Your task to perform on an android device: turn off priority inbox in the gmail app Image 0: 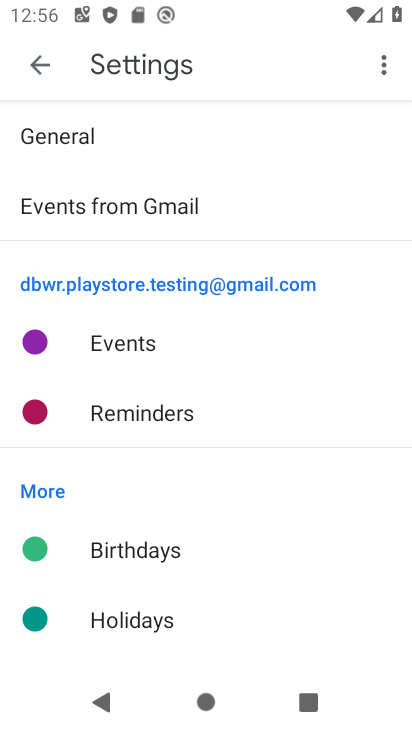
Step 0: press home button
Your task to perform on an android device: turn off priority inbox in the gmail app Image 1: 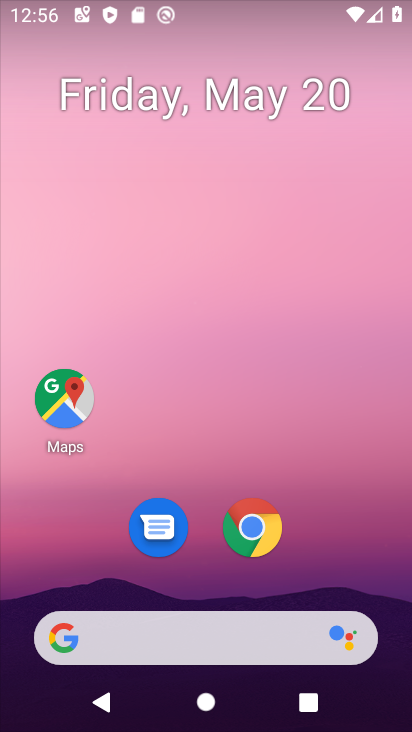
Step 1: drag from (307, 533) to (328, 20)
Your task to perform on an android device: turn off priority inbox in the gmail app Image 2: 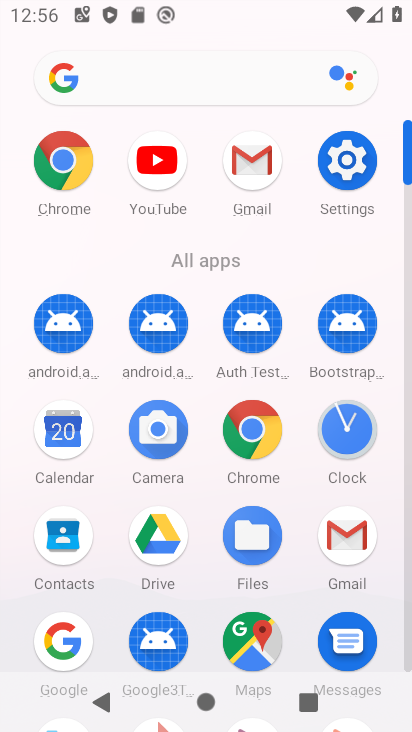
Step 2: click (249, 151)
Your task to perform on an android device: turn off priority inbox in the gmail app Image 3: 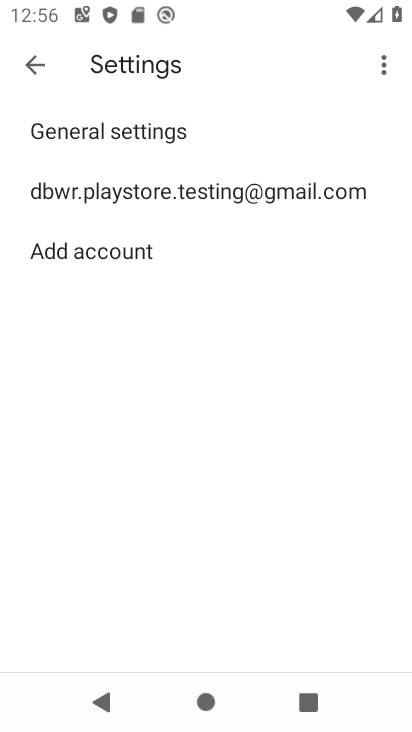
Step 3: click (248, 199)
Your task to perform on an android device: turn off priority inbox in the gmail app Image 4: 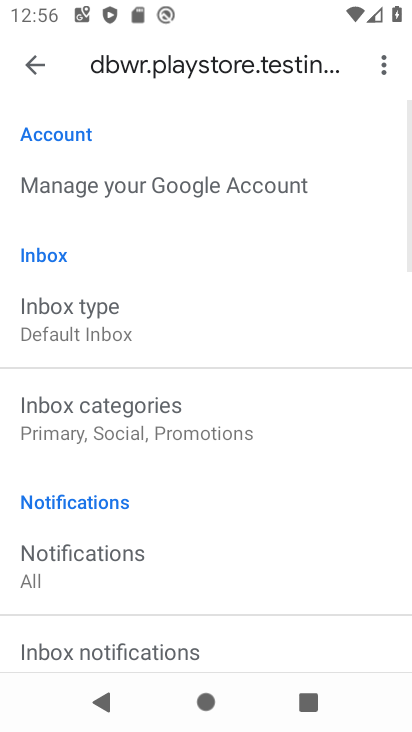
Step 4: click (115, 339)
Your task to perform on an android device: turn off priority inbox in the gmail app Image 5: 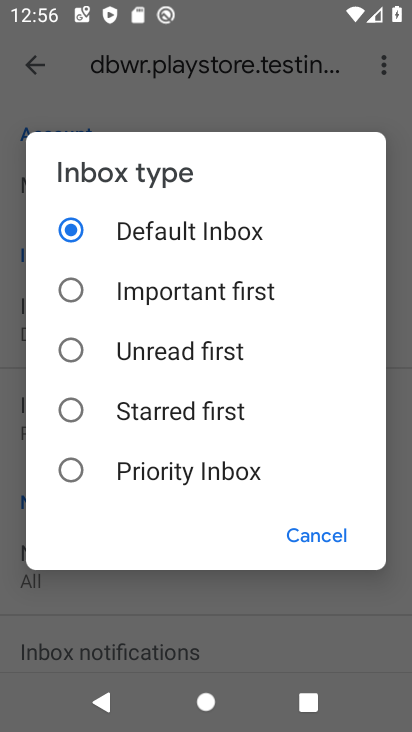
Step 5: click (73, 289)
Your task to perform on an android device: turn off priority inbox in the gmail app Image 6: 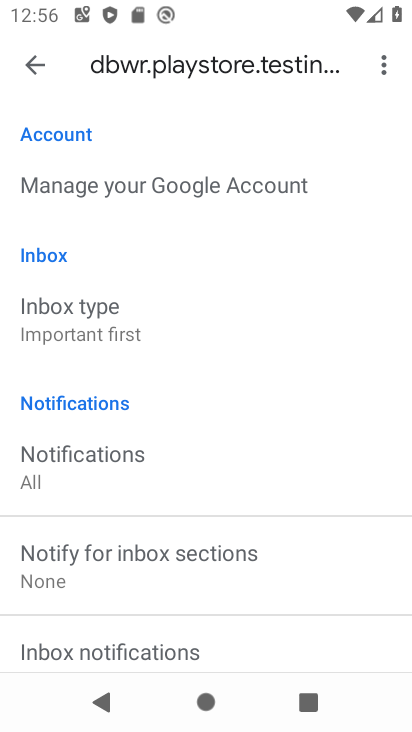
Step 6: task complete